Your task to perform on an android device: turn off notifications in google photos Image 0: 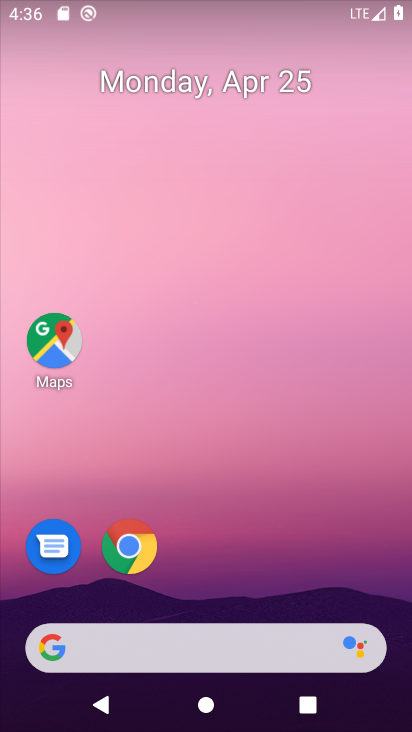
Step 0: drag from (256, 579) to (279, 43)
Your task to perform on an android device: turn off notifications in google photos Image 1: 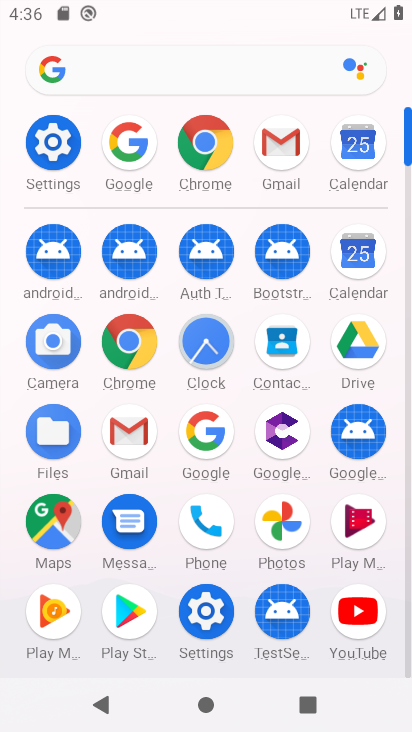
Step 1: click (262, 511)
Your task to perform on an android device: turn off notifications in google photos Image 2: 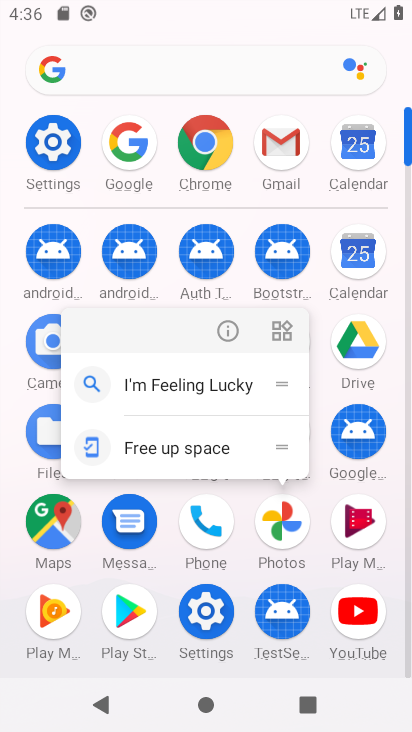
Step 2: click (260, 507)
Your task to perform on an android device: turn off notifications in google photos Image 3: 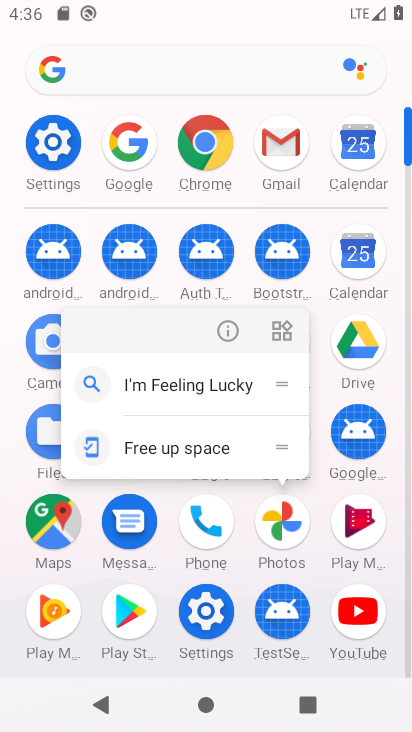
Step 3: click (260, 504)
Your task to perform on an android device: turn off notifications in google photos Image 4: 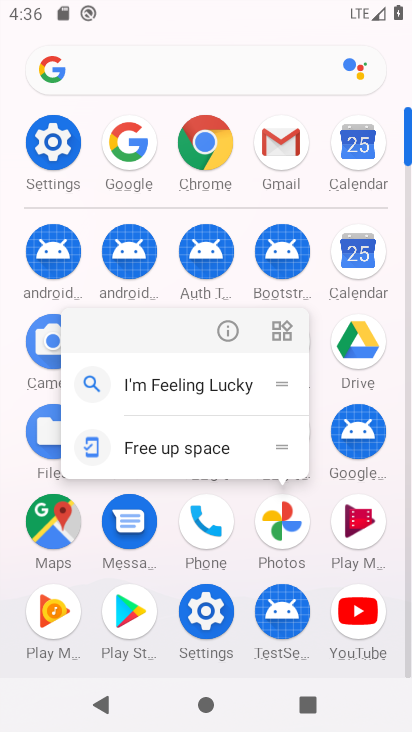
Step 4: click (260, 504)
Your task to perform on an android device: turn off notifications in google photos Image 5: 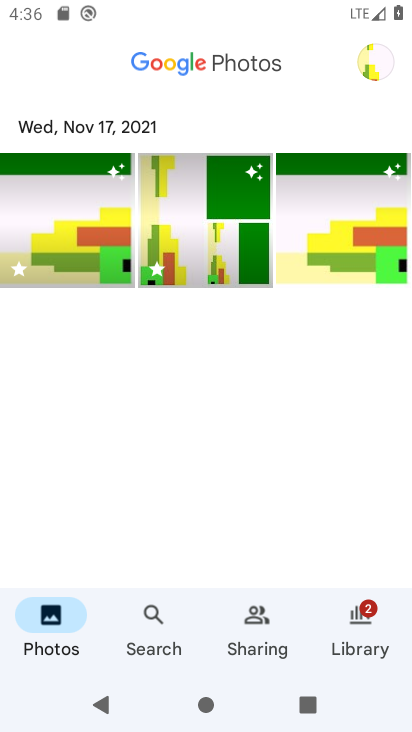
Step 5: click (387, 52)
Your task to perform on an android device: turn off notifications in google photos Image 6: 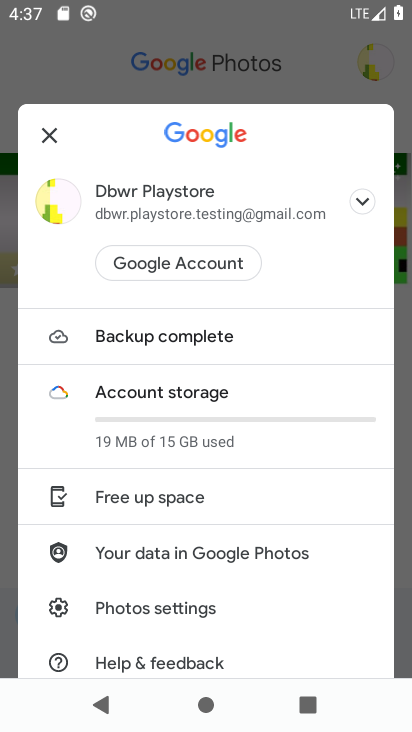
Step 6: click (203, 598)
Your task to perform on an android device: turn off notifications in google photos Image 7: 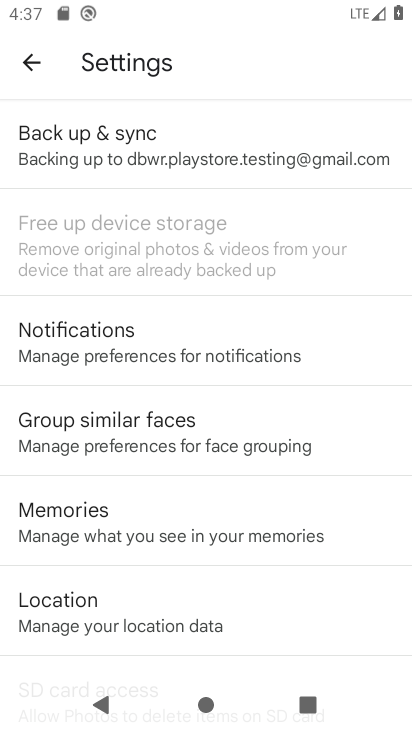
Step 7: click (214, 325)
Your task to perform on an android device: turn off notifications in google photos Image 8: 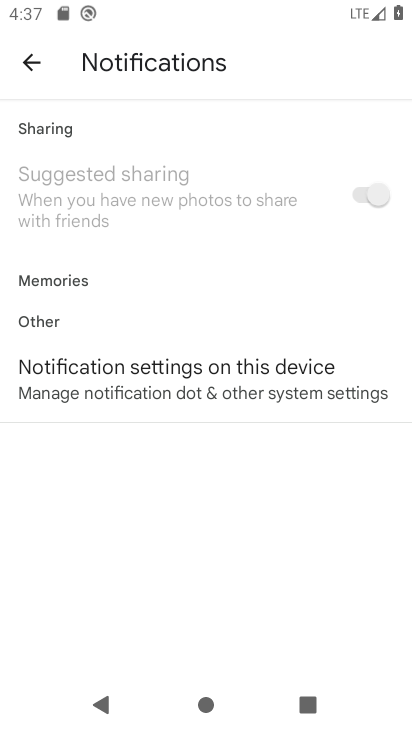
Step 8: click (194, 390)
Your task to perform on an android device: turn off notifications in google photos Image 9: 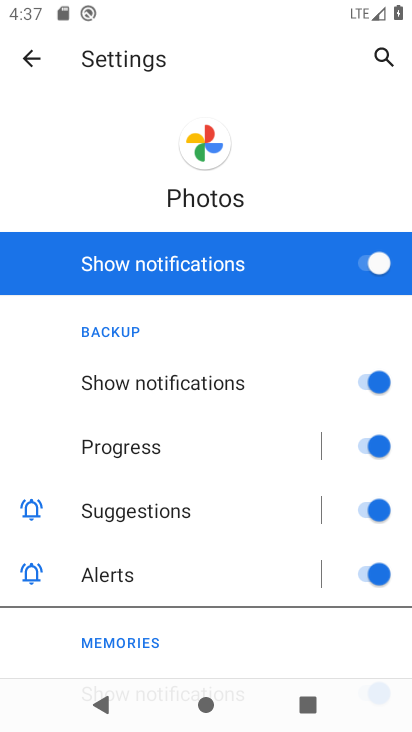
Step 9: click (347, 266)
Your task to perform on an android device: turn off notifications in google photos Image 10: 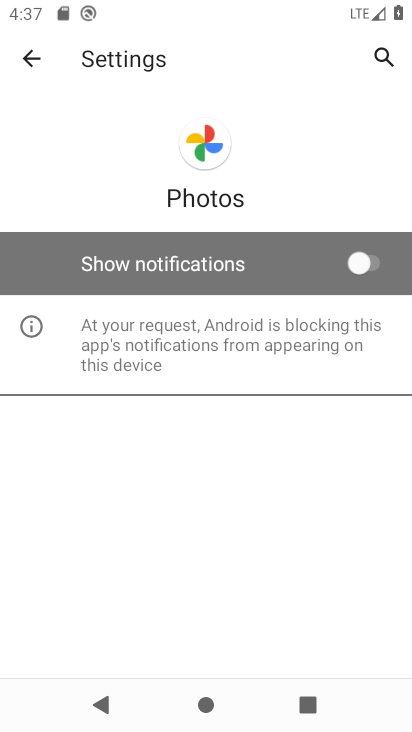
Step 10: task complete